Your task to perform on an android device: Open Google Image 0: 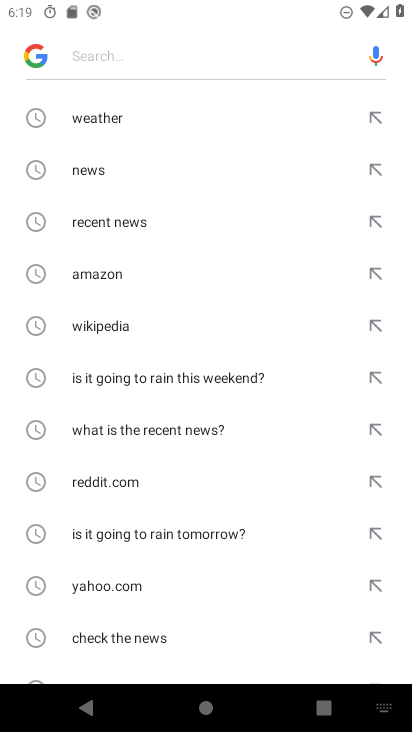
Step 0: press home button
Your task to perform on an android device: Open Google Image 1: 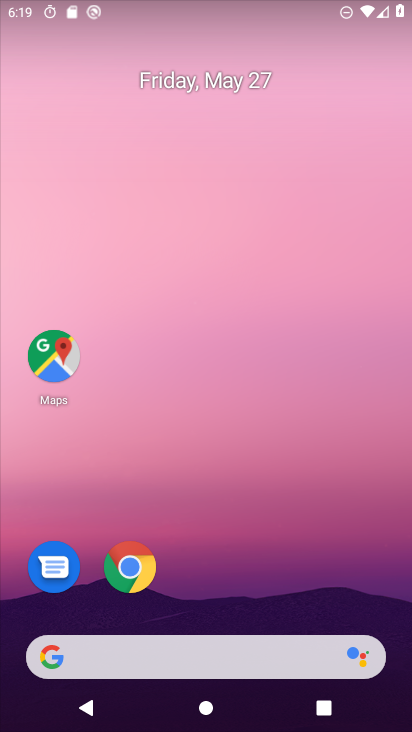
Step 1: click (171, 659)
Your task to perform on an android device: Open Google Image 2: 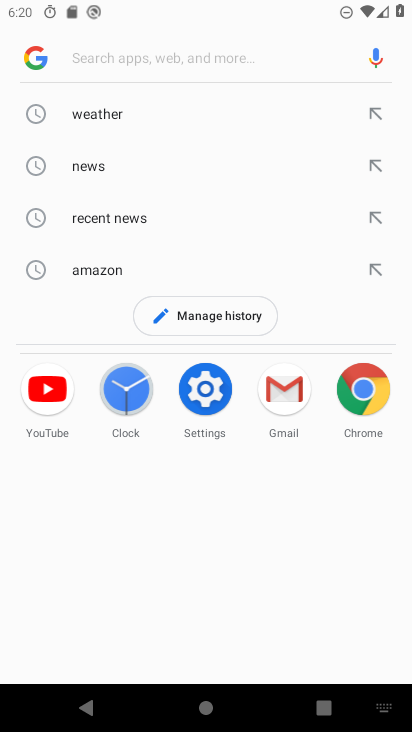
Step 2: task complete